Your task to perform on an android device: Search for a dining table on crateandbarrel.com Image 0: 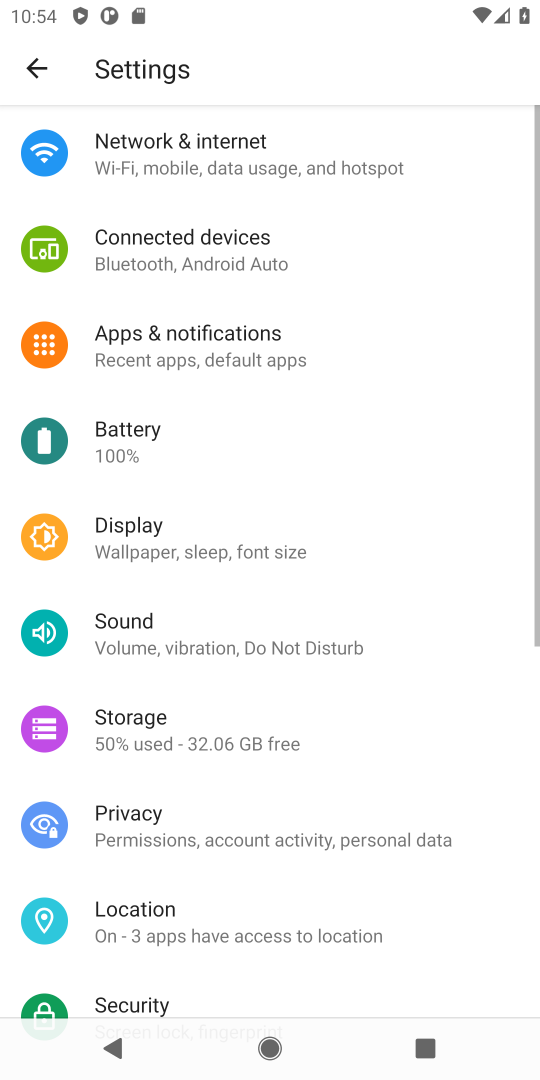
Step 0: press home button
Your task to perform on an android device: Search for a dining table on crateandbarrel.com Image 1: 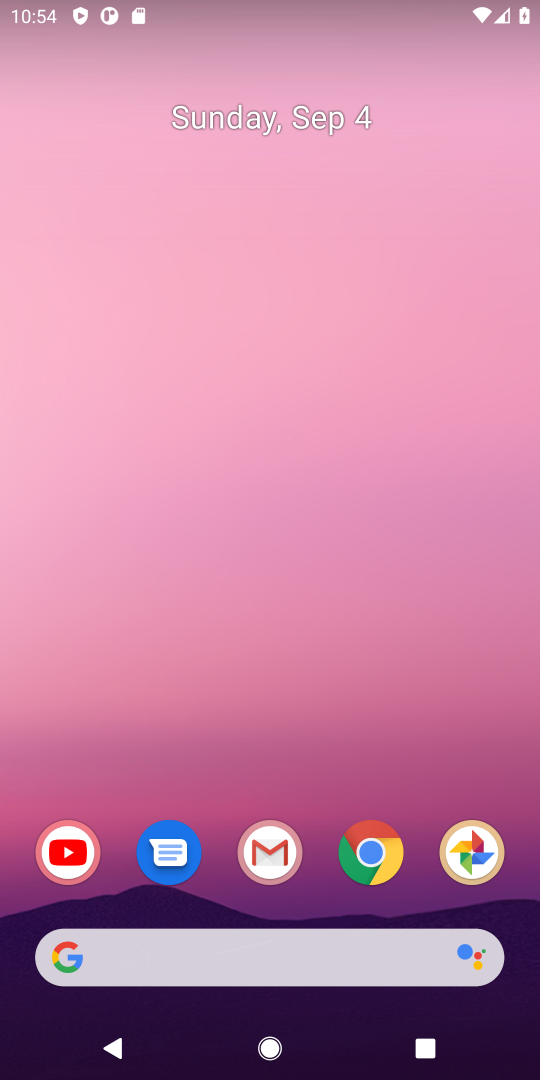
Step 1: drag from (424, 890) to (238, 39)
Your task to perform on an android device: Search for a dining table on crateandbarrel.com Image 2: 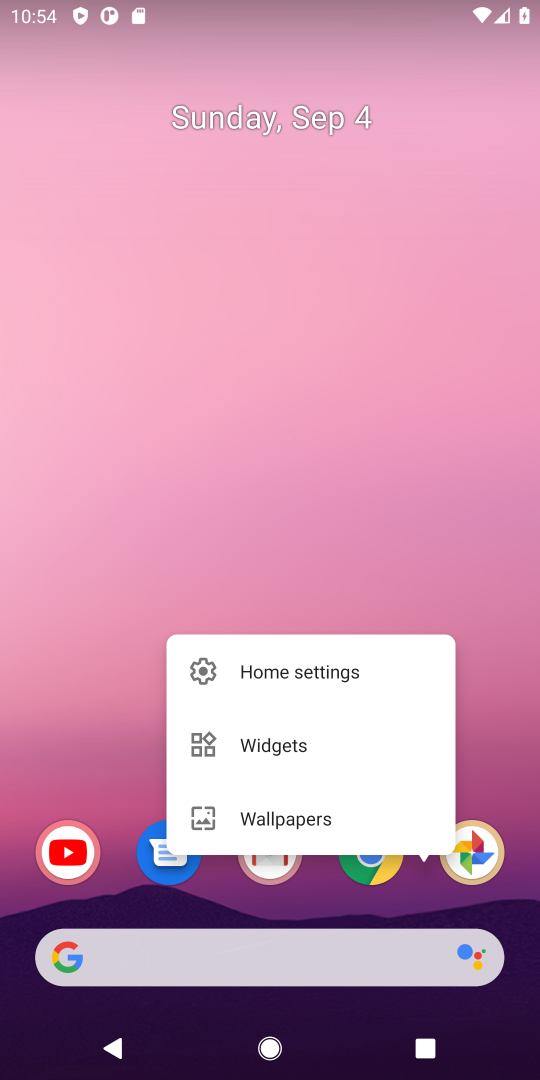
Step 2: click (443, 543)
Your task to perform on an android device: Search for a dining table on crateandbarrel.com Image 3: 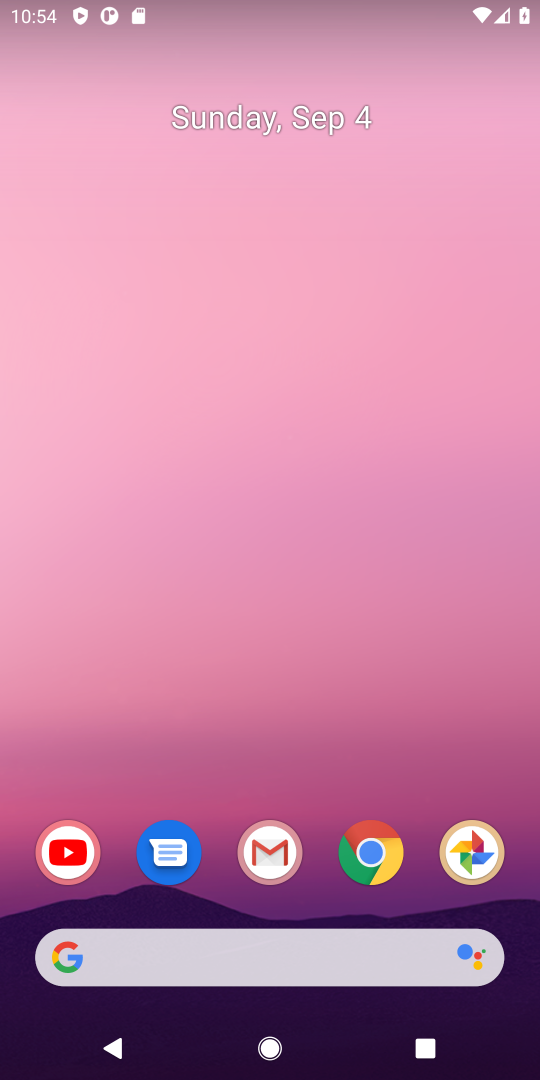
Step 3: drag from (431, 928) to (378, 60)
Your task to perform on an android device: Search for a dining table on crateandbarrel.com Image 4: 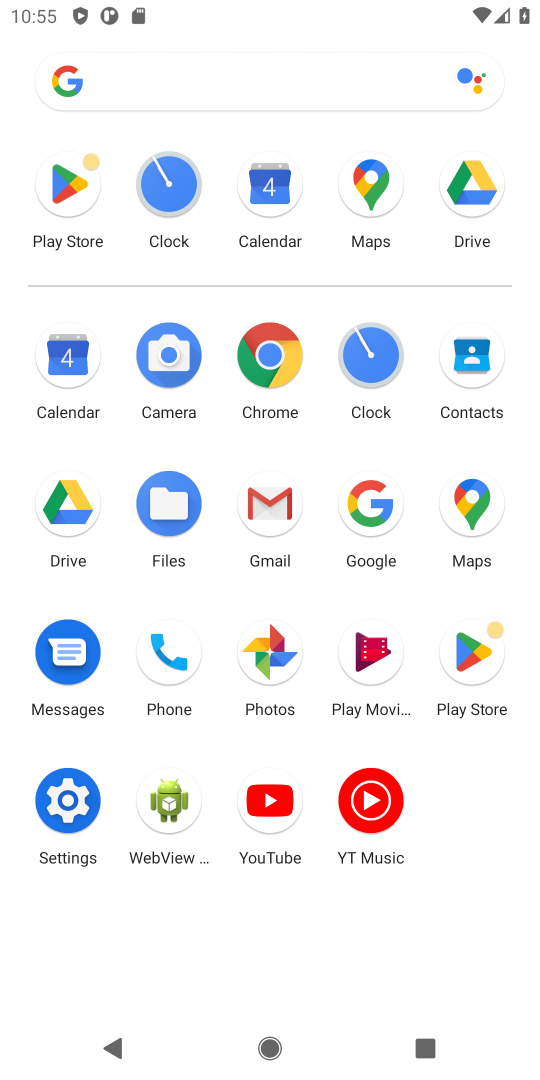
Step 4: click (380, 493)
Your task to perform on an android device: Search for a dining table on crateandbarrel.com Image 5: 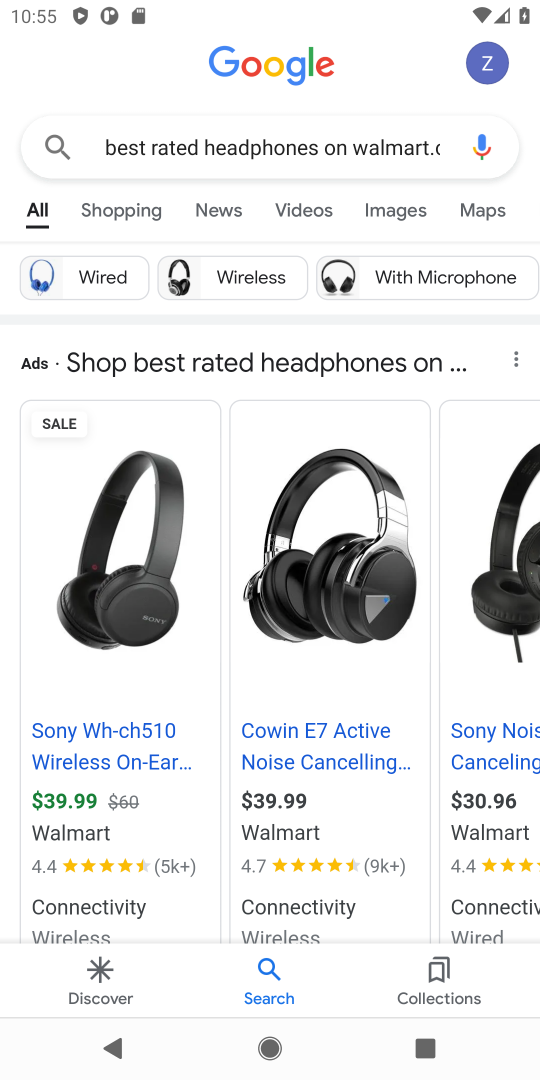
Step 5: press back button
Your task to perform on an android device: Search for a dining table on crateandbarrel.com Image 6: 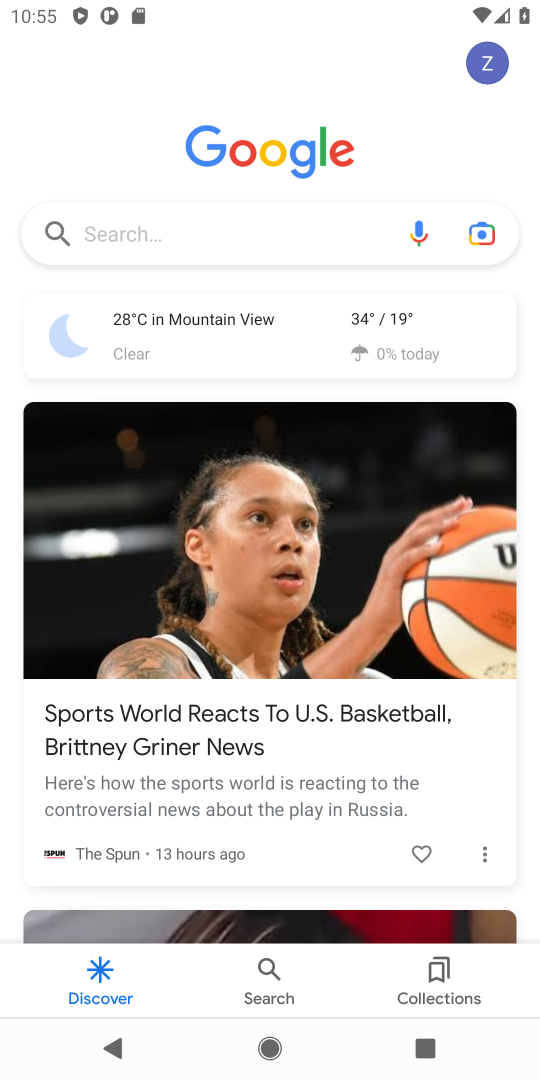
Step 6: click (116, 237)
Your task to perform on an android device: Search for a dining table on crateandbarrel.com Image 7: 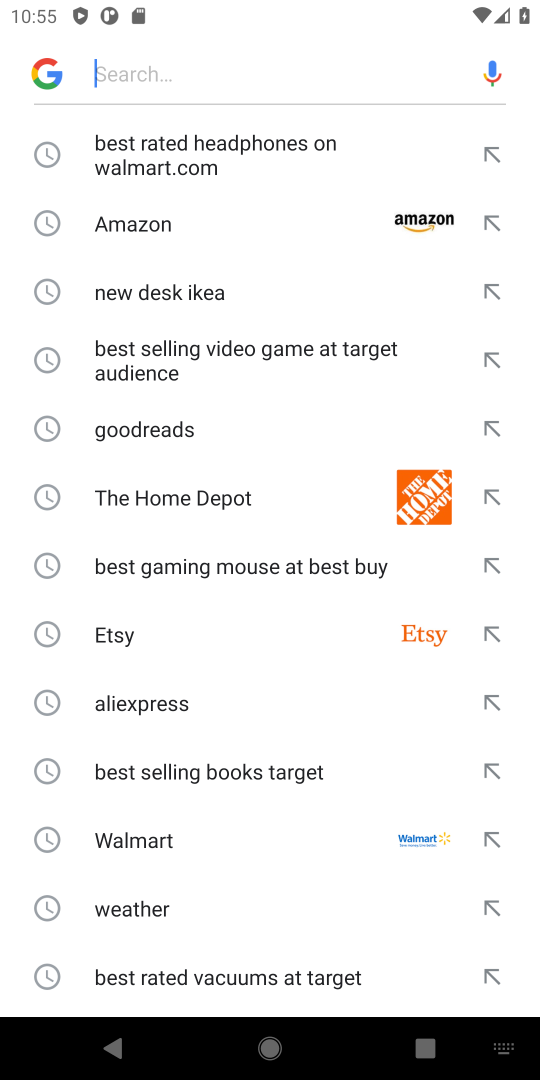
Step 7: type "dining table on crateandbarrel.com"
Your task to perform on an android device: Search for a dining table on crateandbarrel.com Image 8: 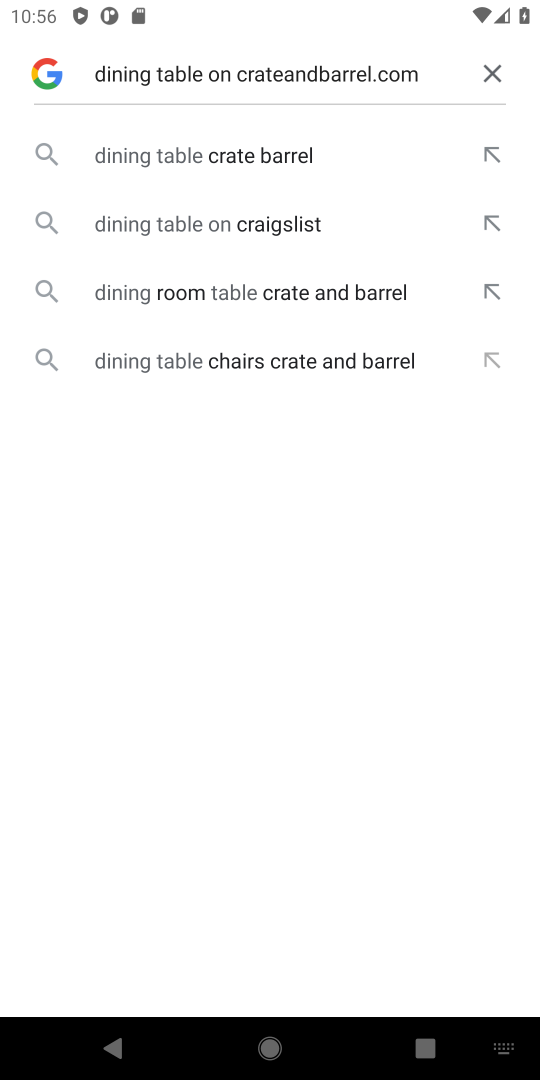
Step 8: task complete